Your task to perform on an android device: change your default location settings in chrome Image 0: 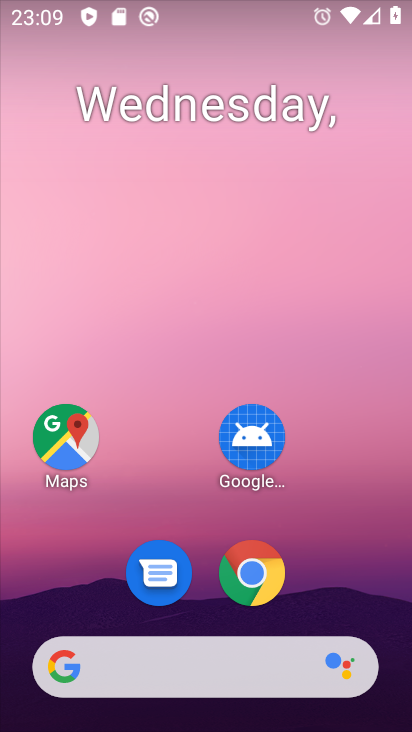
Step 0: click (250, 571)
Your task to perform on an android device: change your default location settings in chrome Image 1: 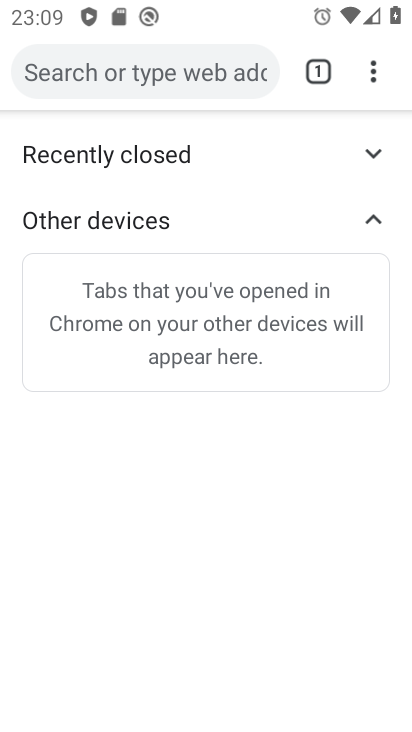
Step 1: click (375, 69)
Your task to perform on an android device: change your default location settings in chrome Image 2: 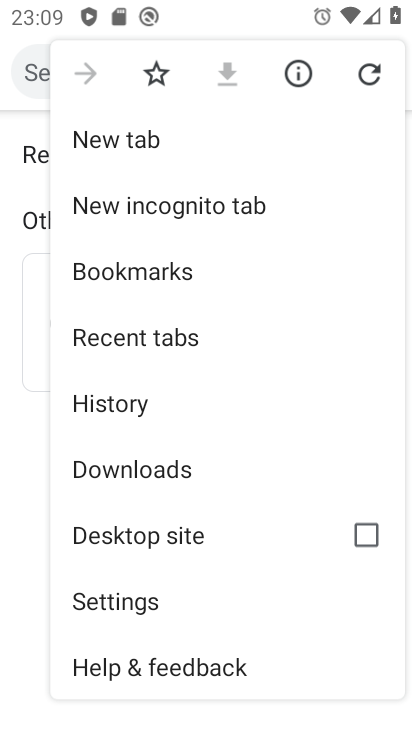
Step 2: click (122, 598)
Your task to perform on an android device: change your default location settings in chrome Image 3: 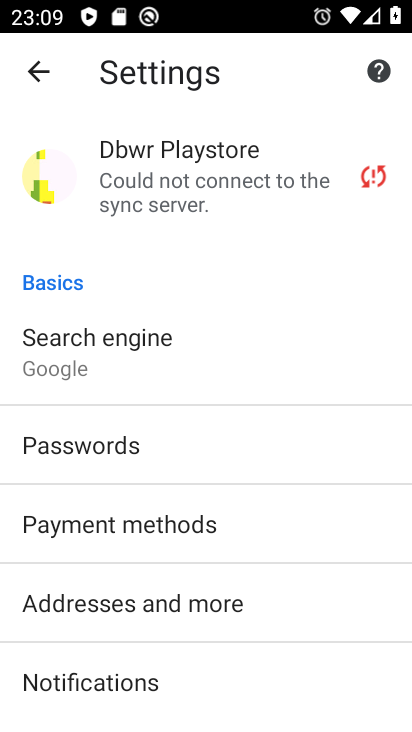
Step 3: drag from (186, 456) to (243, 328)
Your task to perform on an android device: change your default location settings in chrome Image 4: 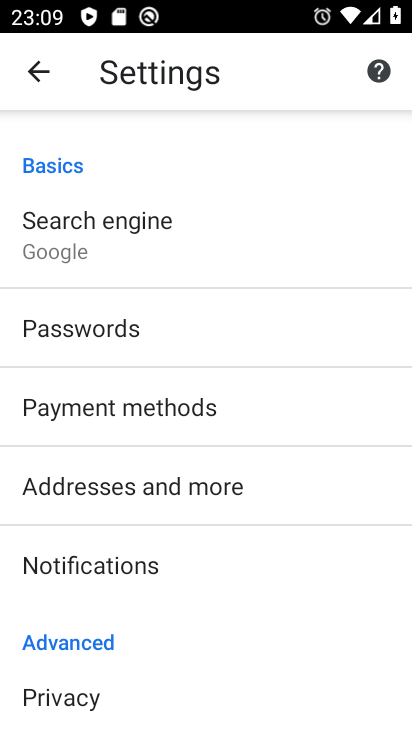
Step 4: drag from (194, 590) to (256, 473)
Your task to perform on an android device: change your default location settings in chrome Image 5: 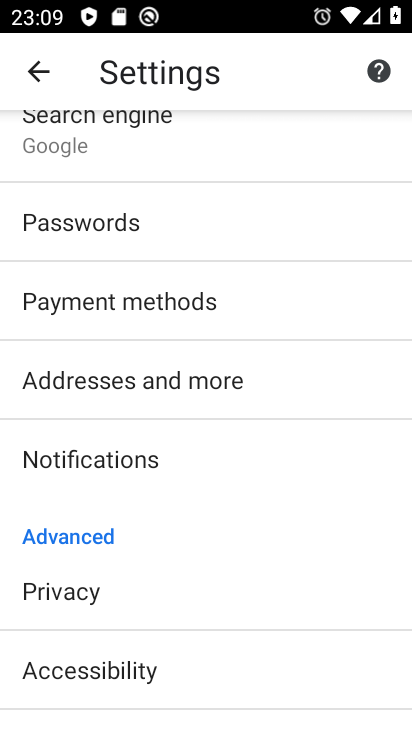
Step 5: drag from (202, 565) to (241, 460)
Your task to perform on an android device: change your default location settings in chrome Image 6: 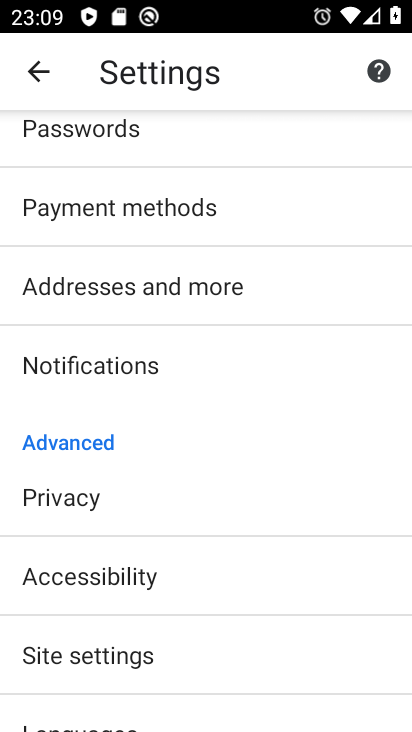
Step 6: drag from (187, 582) to (230, 487)
Your task to perform on an android device: change your default location settings in chrome Image 7: 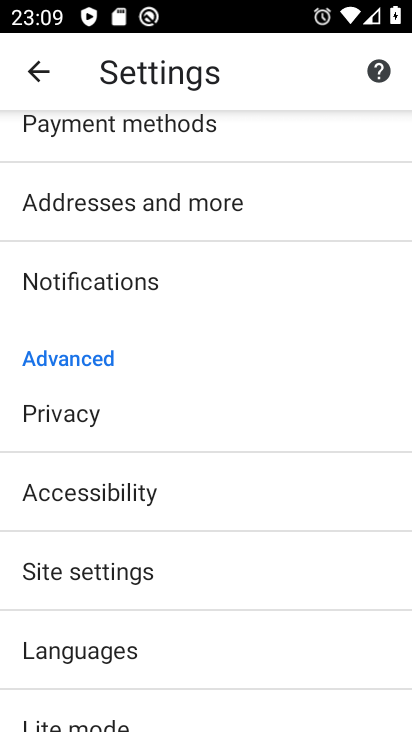
Step 7: drag from (224, 587) to (246, 494)
Your task to perform on an android device: change your default location settings in chrome Image 8: 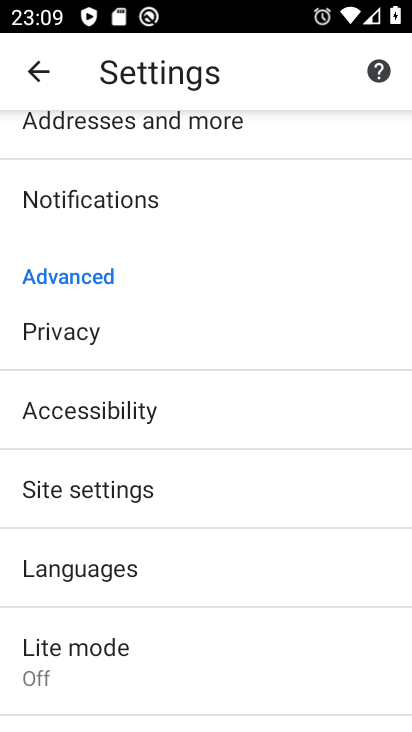
Step 8: click (130, 482)
Your task to perform on an android device: change your default location settings in chrome Image 9: 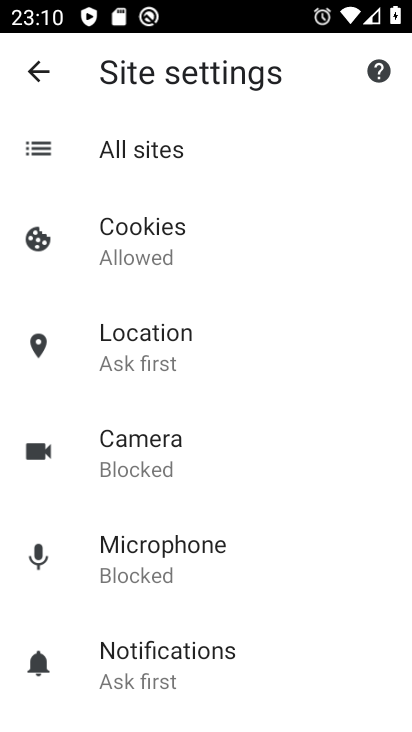
Step 9: click (150, 346)
Your task to perform on an android device: change your default location settings in chrome Image 10: 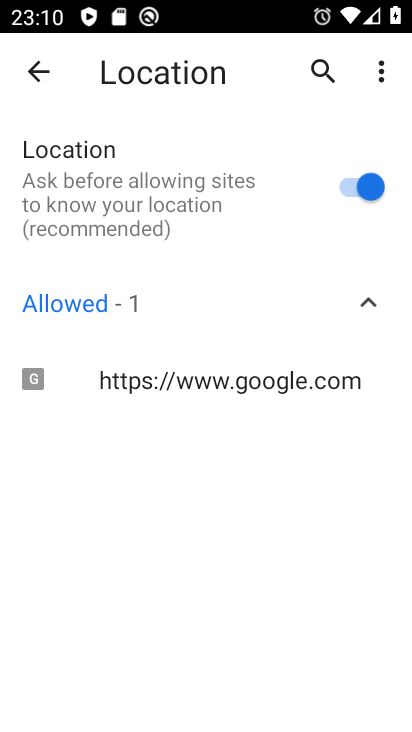
Step 10: click (365, 183)
Your task to perform on an android device: change your default location settings in chrome Image 11: 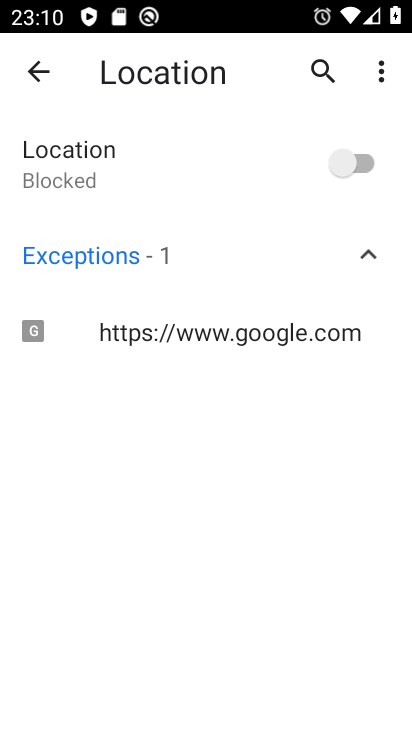
Step 11: task complete